Your task to perform on an android device: Go to CNN.com Image 0: 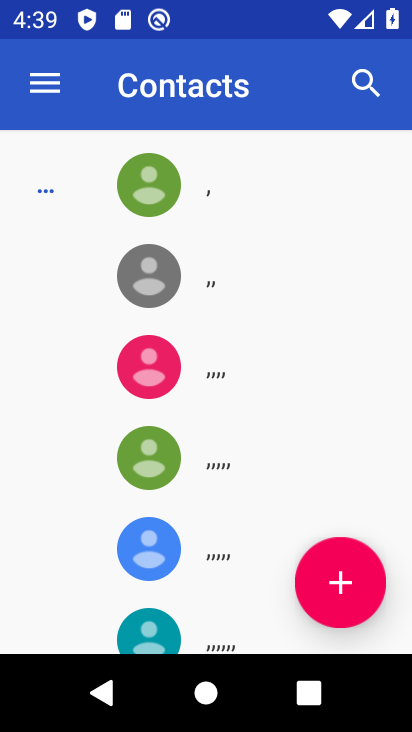
Step 0: press home button
Your task to perform on an android device: Go to CNN.com Image 1: 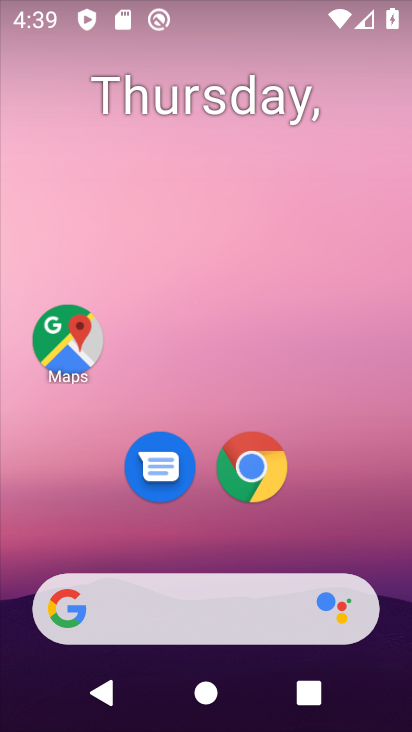
Step 1: click (269, 456)
Your task to perform on an android device: Go to CNN.com Image 2: 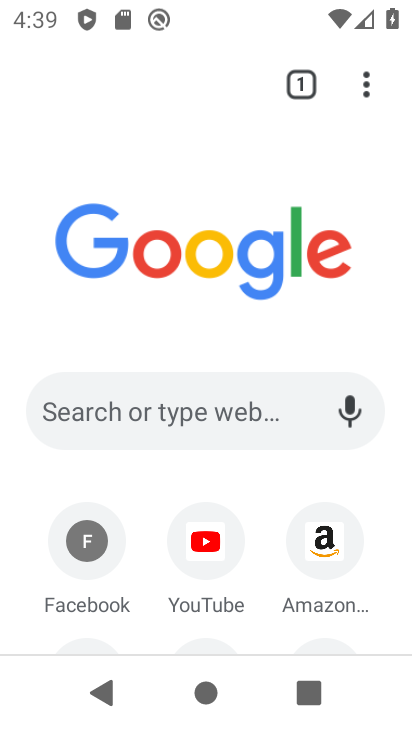
Step 2: click (177, 421)
Your task to perform on an android device: Go to CNN.com Image 3: 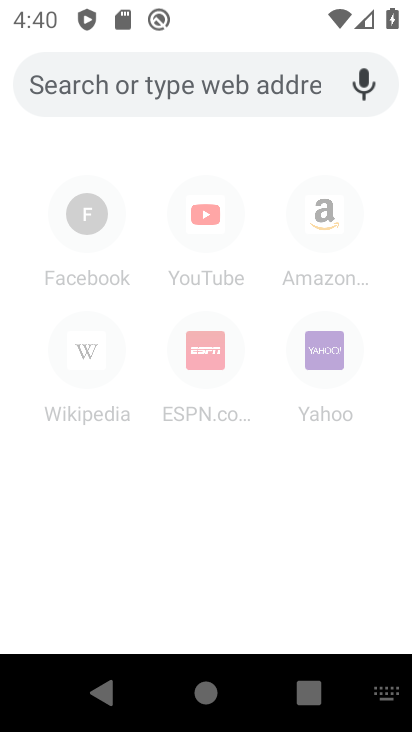
Step 3: type "cnn.com"
Your task to perform on an android device: Go to CNN.com Image 4: 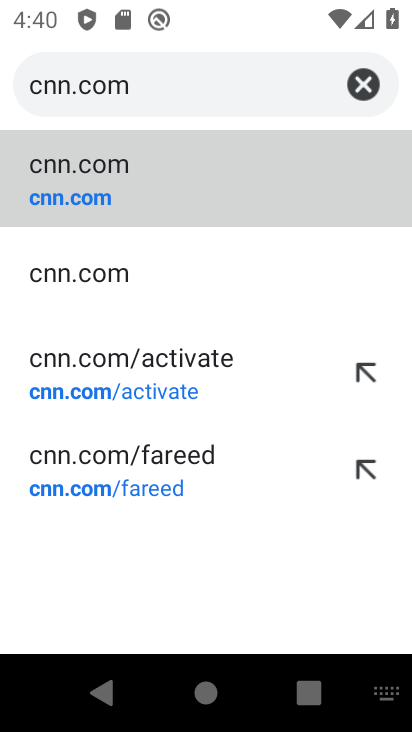
Step 4: click (76, 201)
Your task to perform on an android device: Go to CNN.com Image 5: 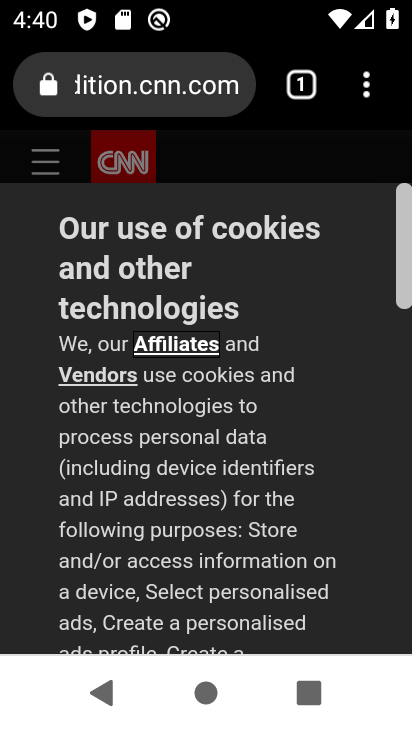
Step 5: task complete